Your task to perform on an android device: Go to settings Image 0: 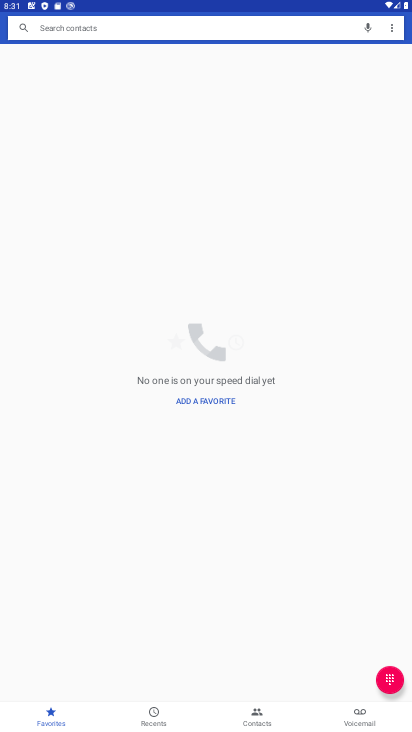
Step 0: press home button
Your task to perform on an android device: Go to settings Image 1: 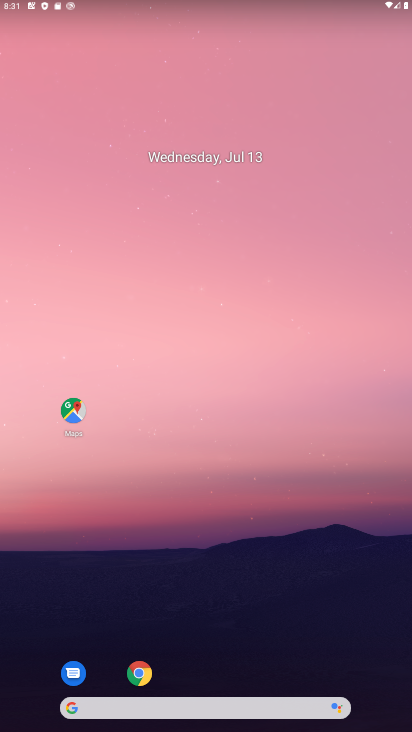
Step 1: drag from (322, 581) to (290, 108)
Your task to perform on an android device: Go to settings Image 2: 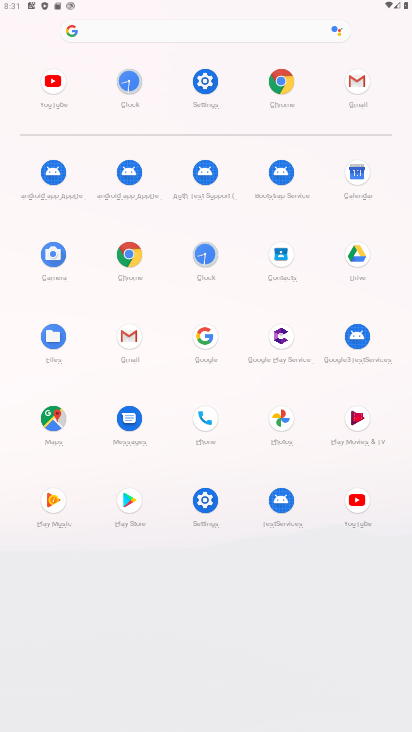
Step 2: click (211, 88)
Your task to perform on an android device: Go to settings Image 3: 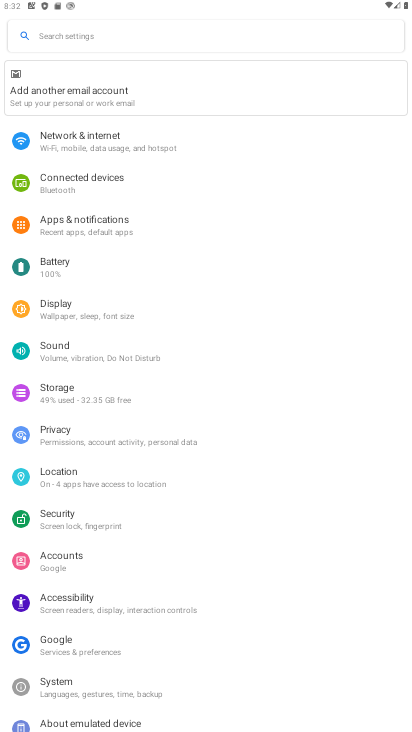
Step 3: task complete